Your task to perform on an android device: Open Google Image 0: 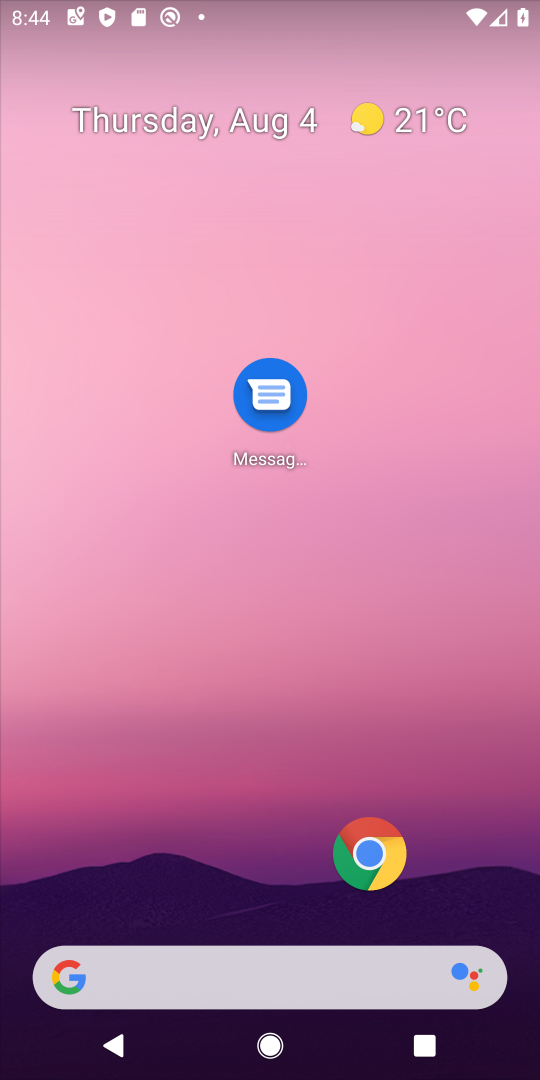
Step 0: drag from (294, 927) to (356, 333)
Your task to perform on an android device: Open Google Image 1: 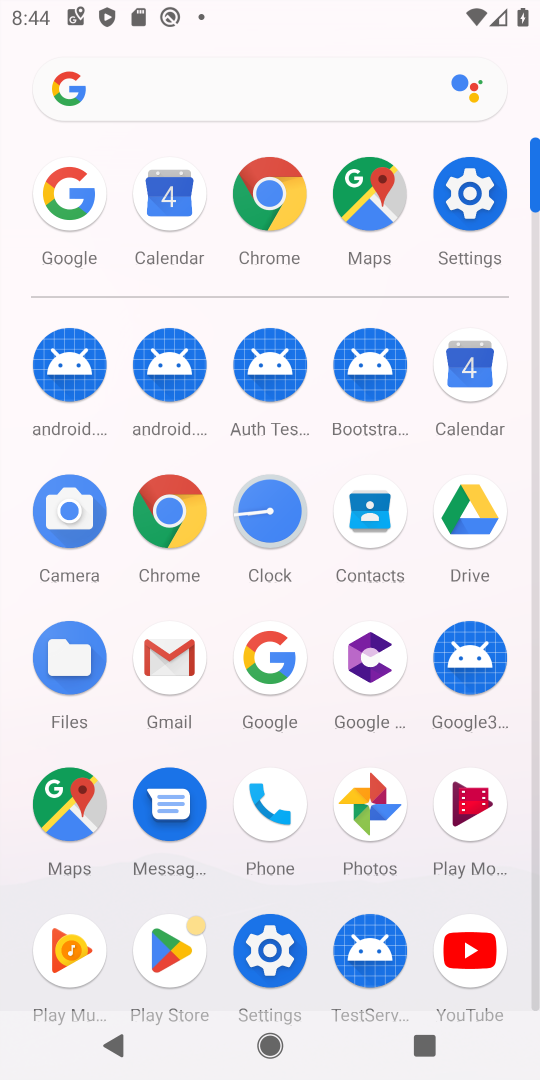
Step 1: click (247, 652)
Your task to perform on an android device: Open Google Image 2: 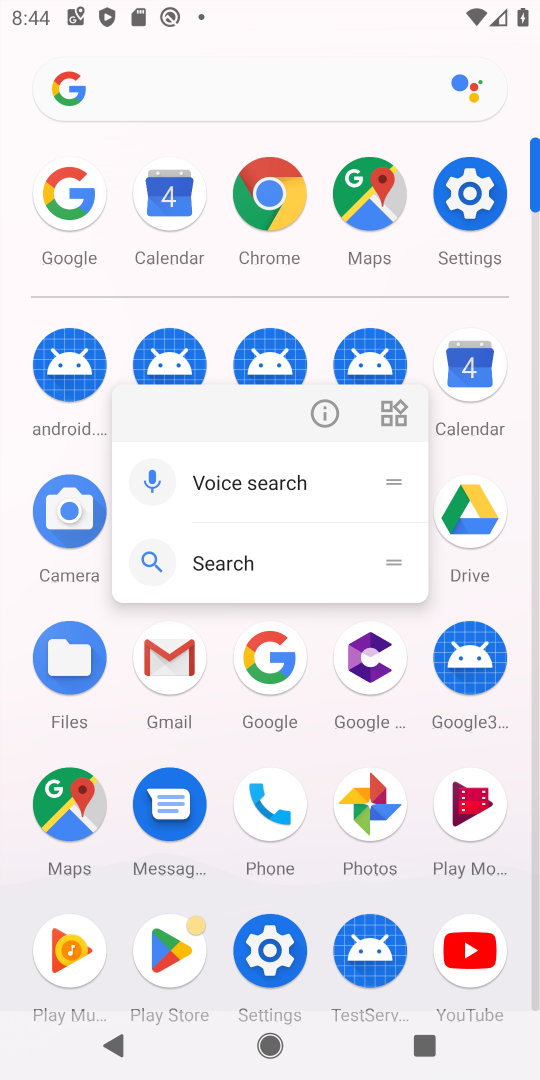
Step 2: click (259, 658)
Your task to perform on an android device: Open Google Image 3: 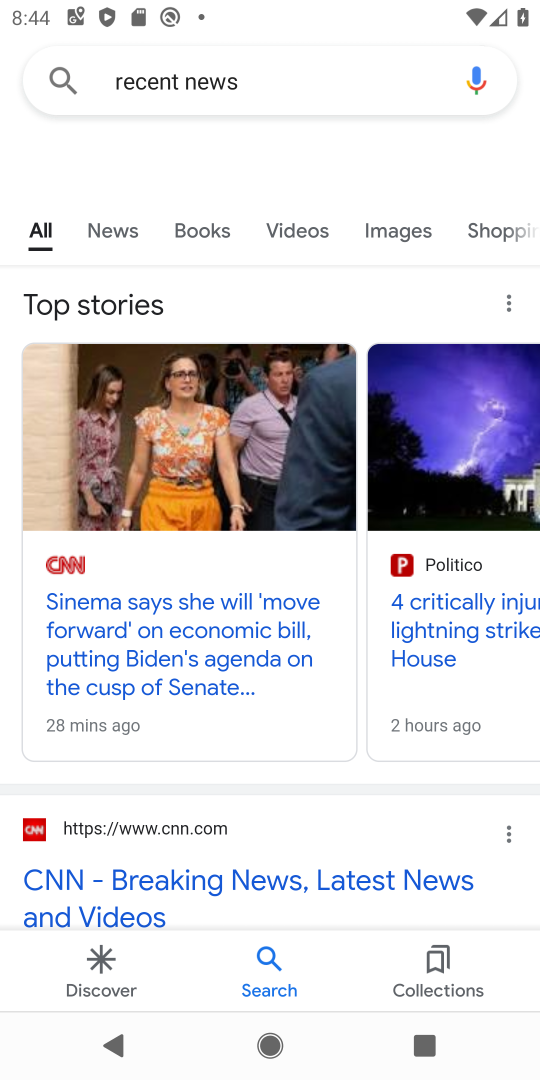
Step 3: task complete